Your task to perform on an android device: Do I have any events this weekend? Image 0: 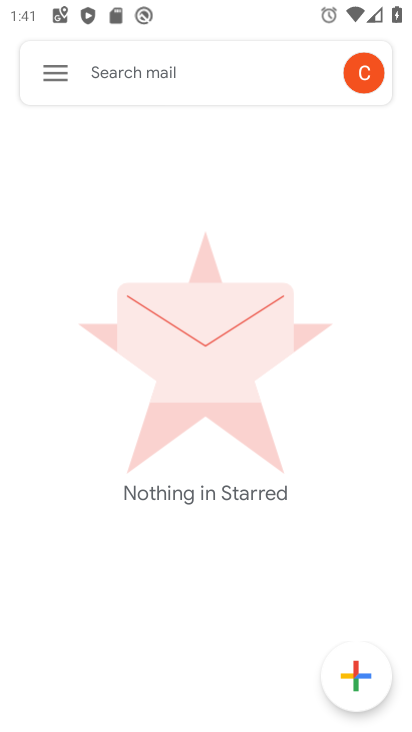
Step 0: press home button
Your task to perform on an android device: Do I have any events this weekend? Image 1: 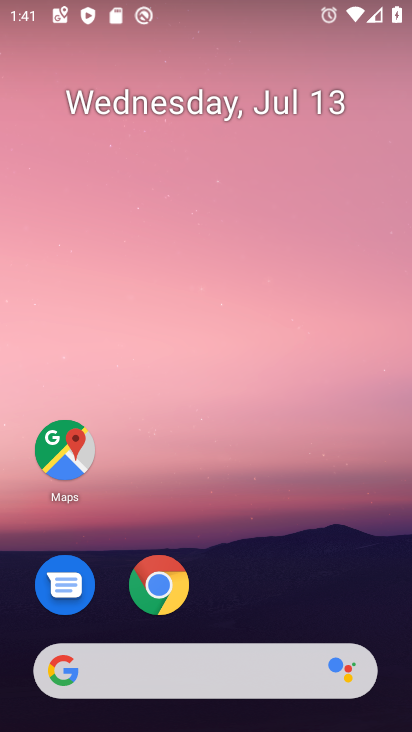
Step 1: drag from (225, 673) to (327, 322)
Your task to perform on an android device: Do I have any events this weekend? Image 2: 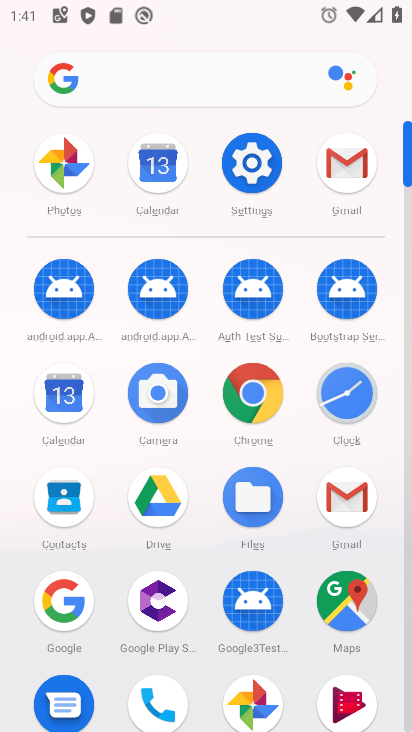
Step 2: click (64, 400)
Your task to perform on an android device: Do I have any events this weekend? Image 3: 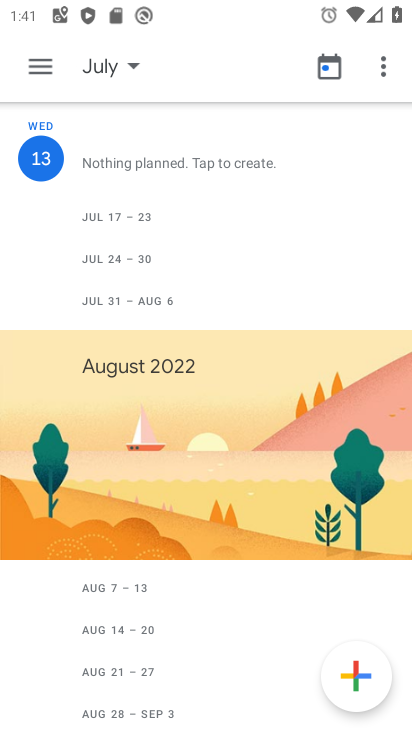
Step 3: click (98, 66)
Your task to perform on an android device: Do I have any events this weekend? Image 4: 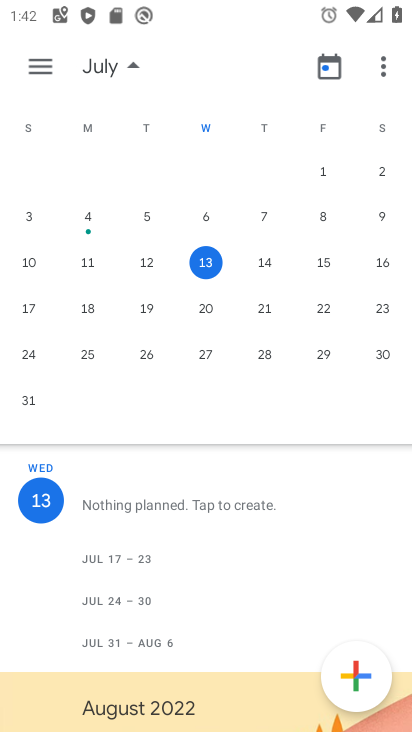
Step 4: click (385, 266)
Your task to perform on an android device: Do I have any events this weekend? Image 5: 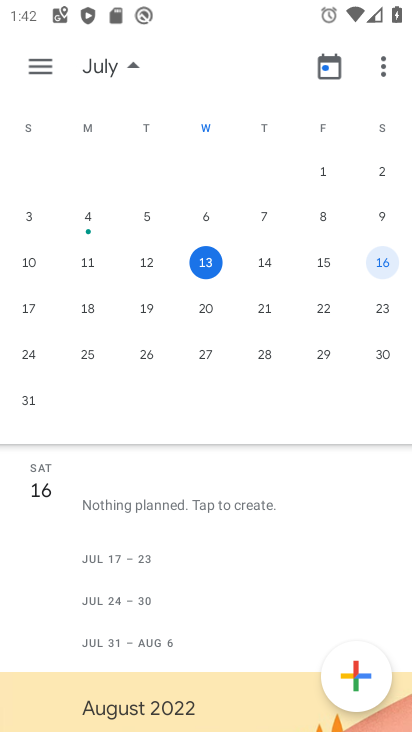
Step 5: click (41, 63)
Your task to perform on an android device: Do I have any events this weekend? Image 6: 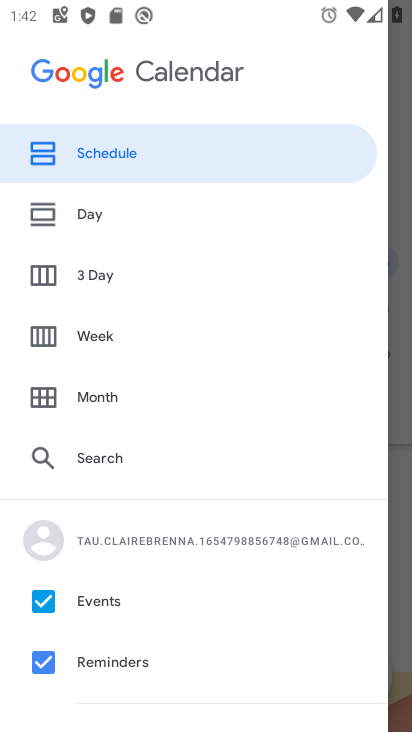
Step 6: click (106, 340)
Your task to perform on an android device: Do I have any events this weekend? Image 7: 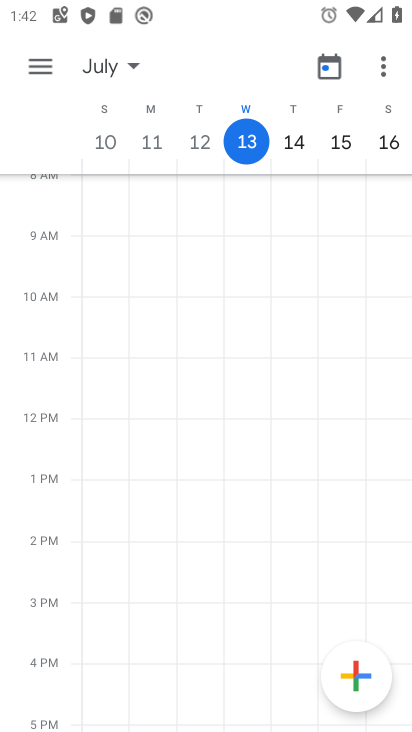
Step 7: click (35, 68)
Your task to perform on an android device: Do I have any events this weekend? Image 8: 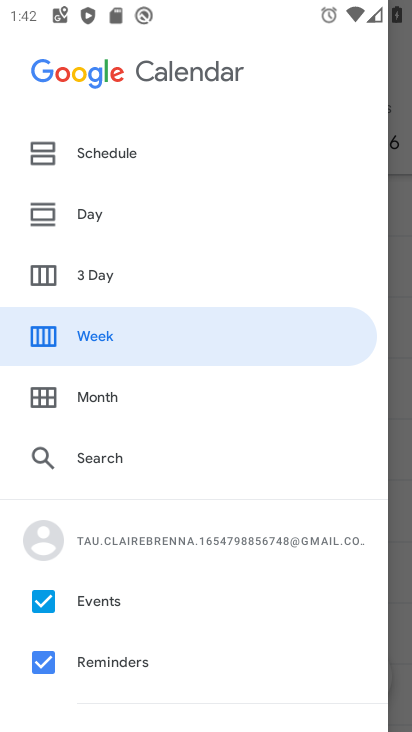
Step 8: click (119, 216)
Your task to perform on an android device: Do I have any events this weekend? Image 9: 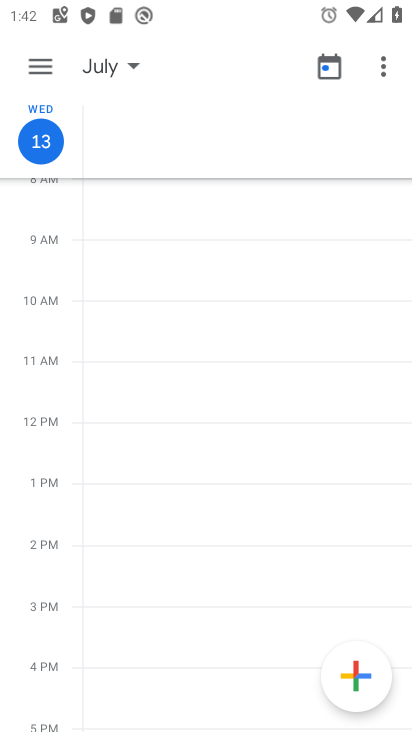
Step 9: click (108, 69)
Your task to perform on an android device: Do I have any events this weekend? Image 10: 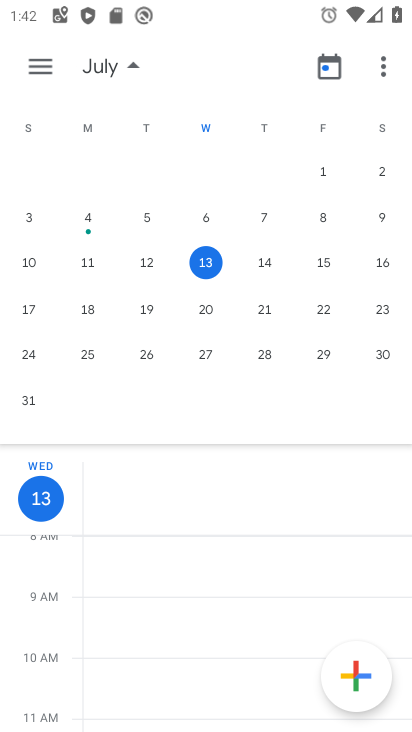
Step 10: click (380, 266)
Your task to perform on an android device: Do I have any events this weekend? Image 11: 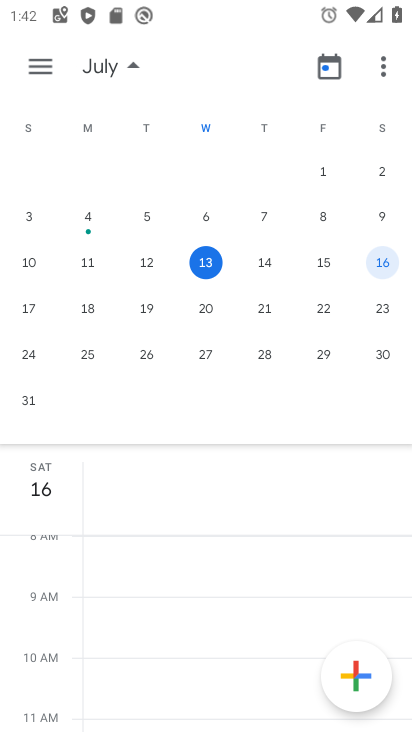
Step 11: click (30, 66)
Your task to perform on an android device: Do I have any events this weekend? Image 12: 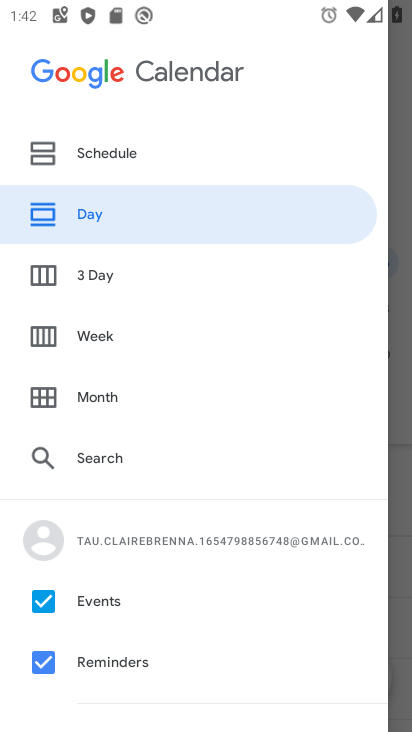
Step 12: click (69, 203)
Your task to perform on an android device: Do I have any events this weekend? Image 13: 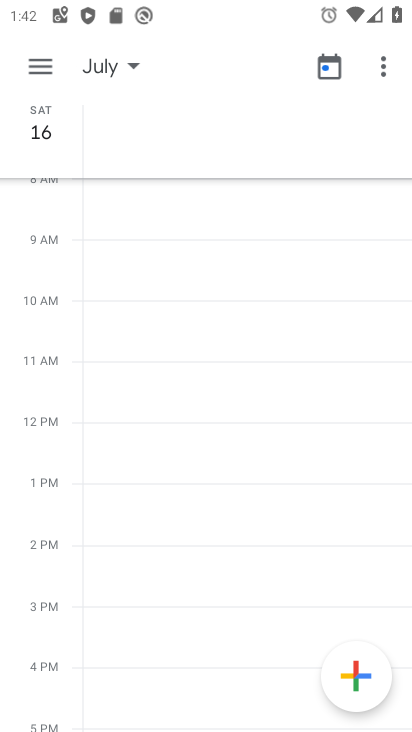
Step 13: click (37, 62)
Your task to perform on an android device: Do I have any events this weekend? Image 14: 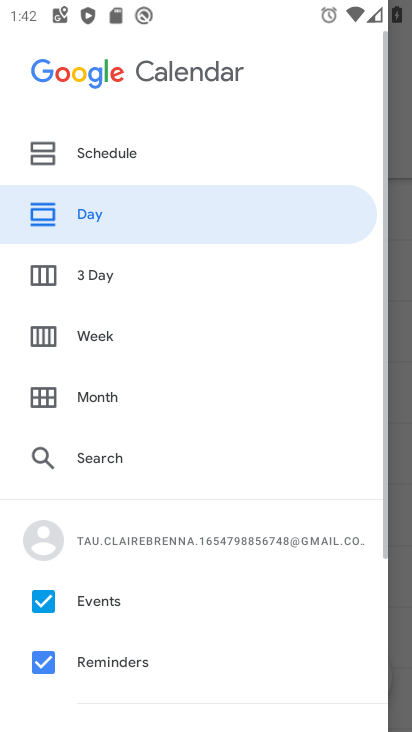
Step 14: click (116, 140)
Your task to perform on an android device: Do I have any events this weekend? Image 15: 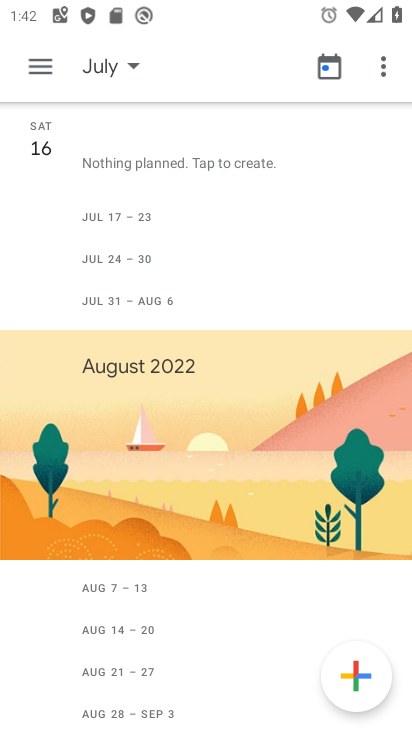
Step 15: task complete